Your task to perform on an android device: Check the weather Image 0: 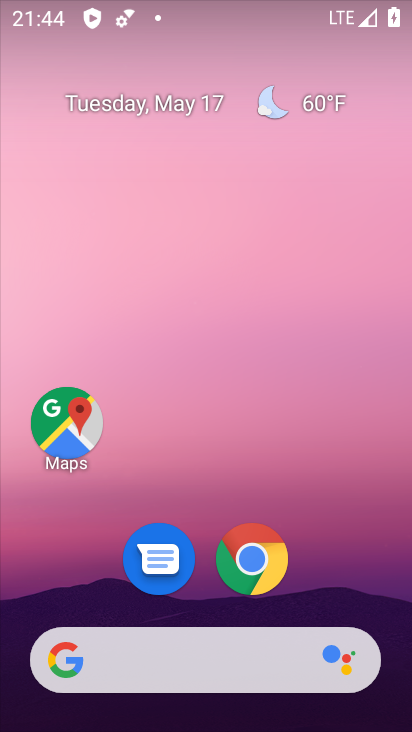
Step 0: drag from (316, 552) to (299, 634)
Your task to perform on an android device: Check the weather Image 1: 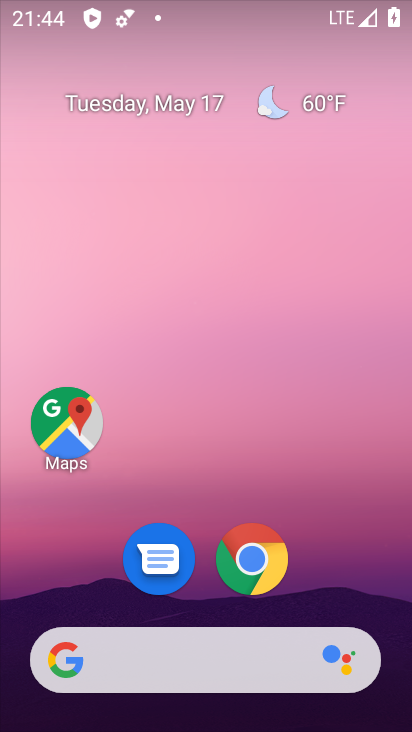
Step 1: click (275, 95)
Your task to perform on an android device: Check the weather Image 2: 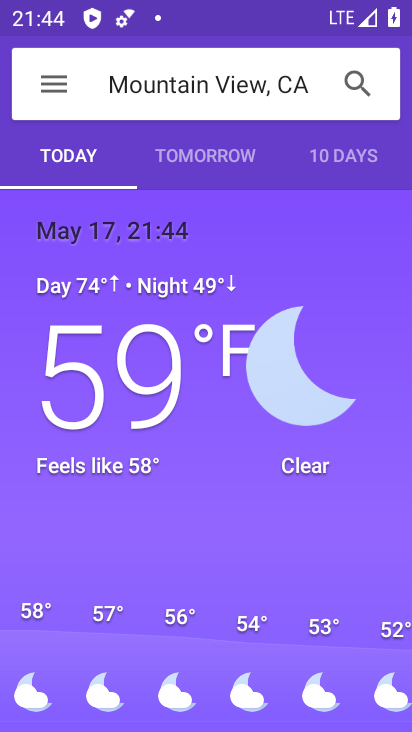
Step 2: task complete